Your task to perform on an android device: turn off sleep mode Image 0: 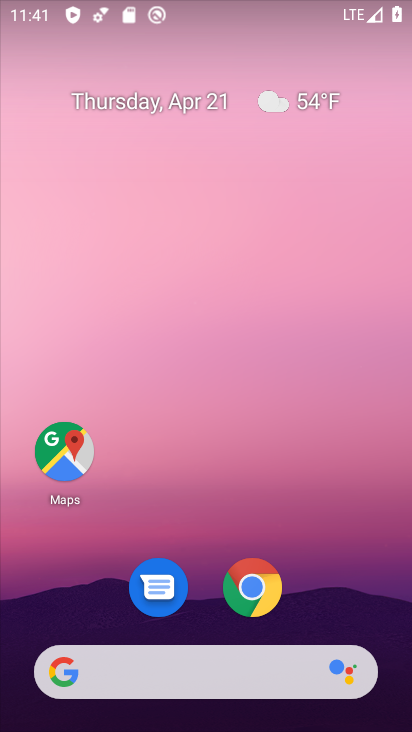
Step 0: drag from (211, 597) to (290, 5)
Your task to perform on an android device: turn off sleep mode Image 1: 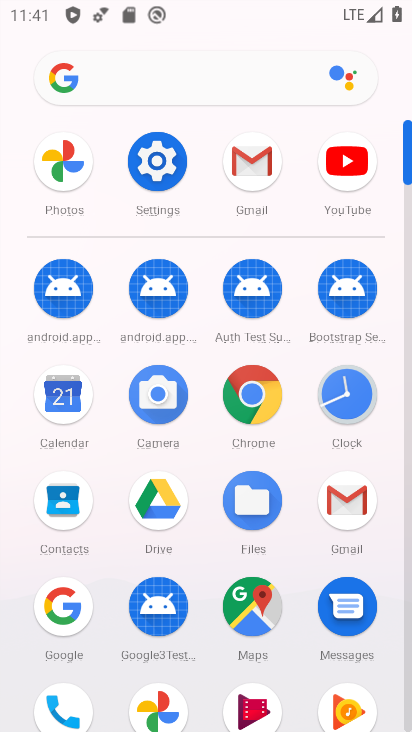
Step 1: click (156, 148)
Your task to perform on an android device: turn off sleep mode Image 2: 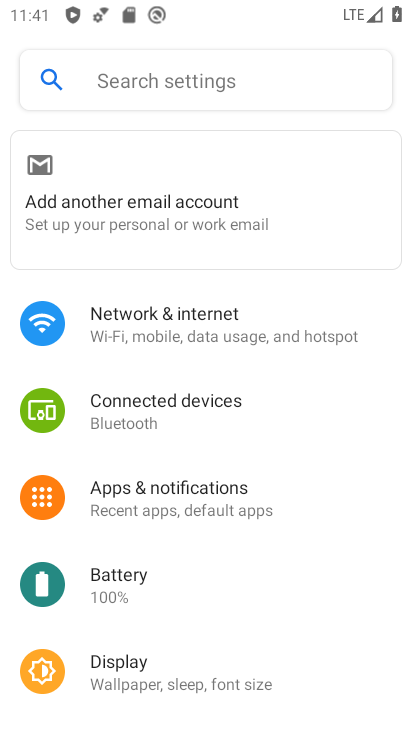
Step 2: click (121, 85)
Your task to perform on an android device: turn off sleep mode Image 3: 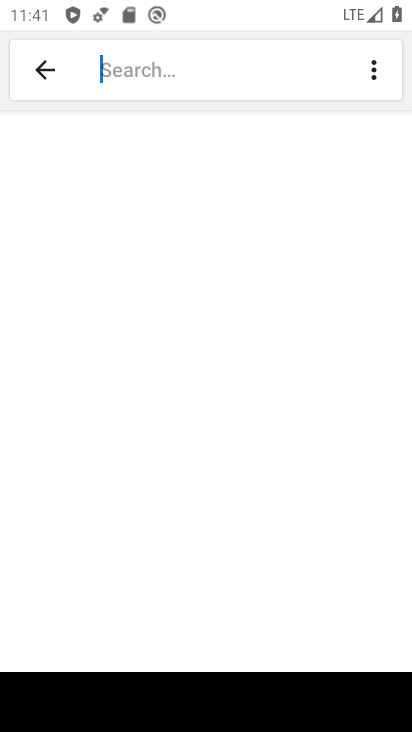
Step 3: type "sleep mode"
Your task to perform on an android device: turn off sleep mode Image 4: 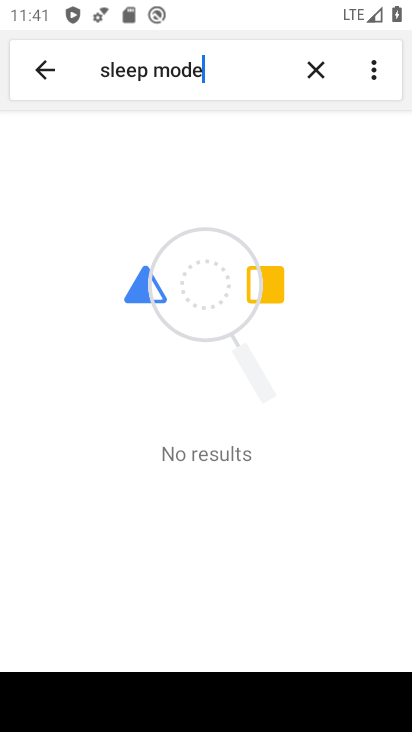
Step 4: task complete